Your task to perform on an android device: read, delete, or share a saved page in the chrome app Image 0: 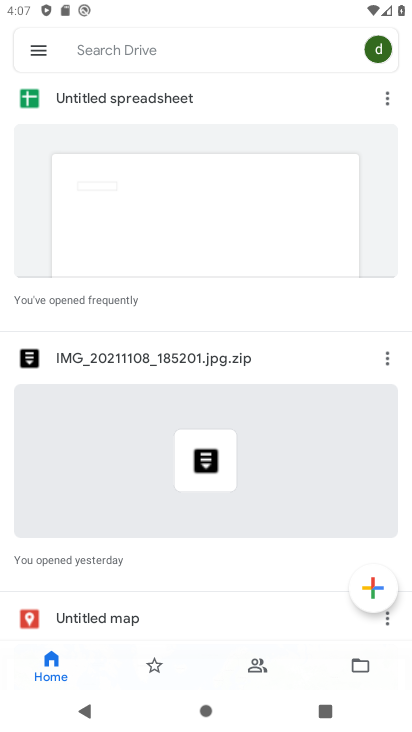
Step 0: press home button
Your task to perform on an android device: read, delete, or share a saved page in the chrome app Image 1: 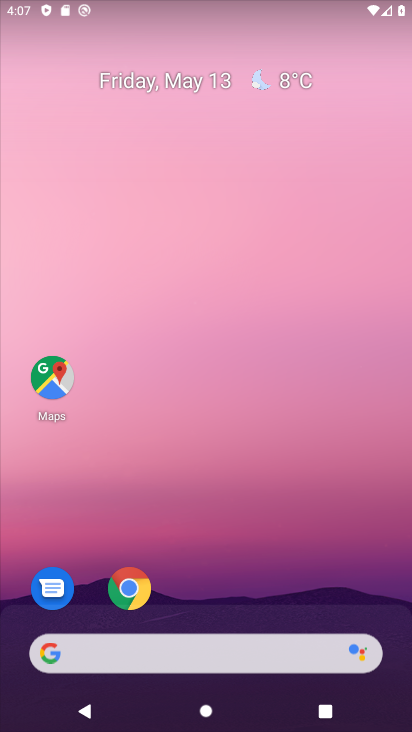
Step 1: click (125, 591)
Your task to perform on an android device: read, delete, or share a saved page in the chrome app Image 2: 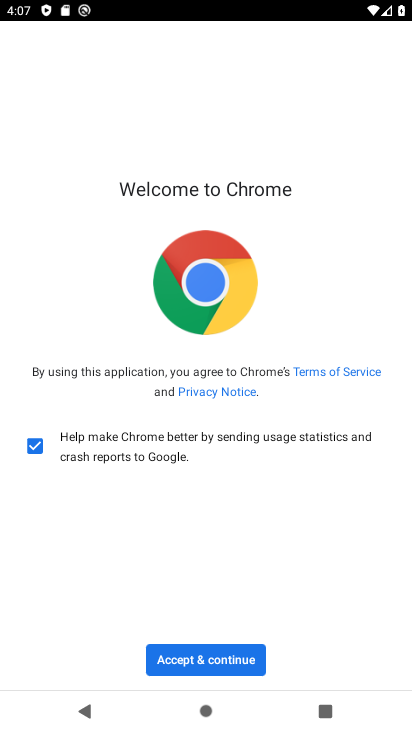
Step 2: click (257, 651)
Your task to perform on an android device: read, delete, or share a saved page in the chrome app Image 3: 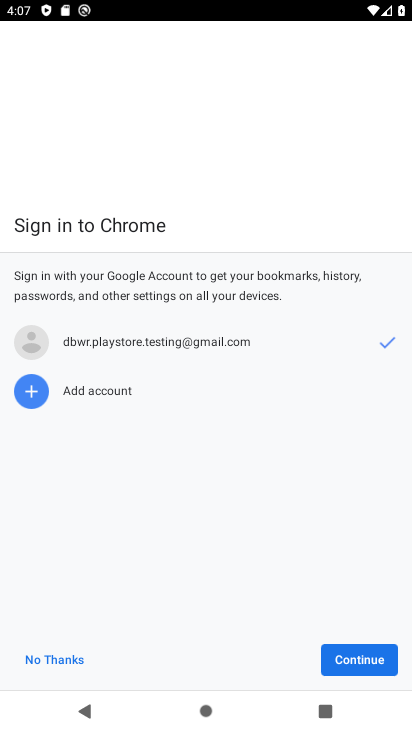
Step 3: click (257, 651)
Your task to perform on an android device: read, delete, or share a saved page in the chrome app Image 4: 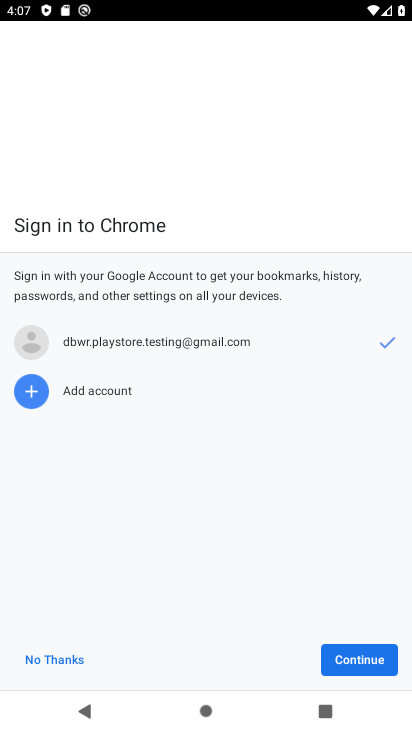
Step 4: click (368, 655)
Your task to perform on an android device: read, delete, or share a saved page in the chrome app Image 5: 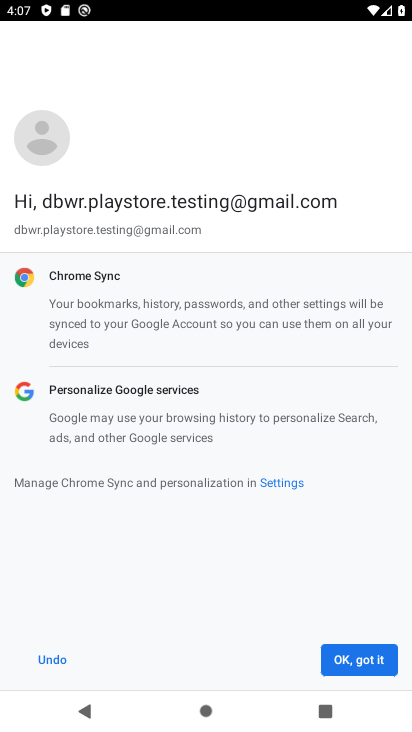
Step 5: click (373, 656)
Your task to perform on an android device: read, delete, or share a saved page in the chrome app Image 6: 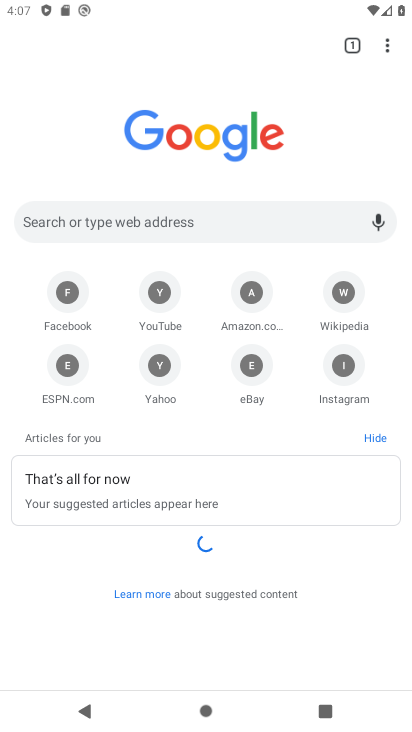
Step 6: click (383, 47)
Your task to perform on an android device: read, delete, or share a saved page in the chrome app Image 7: 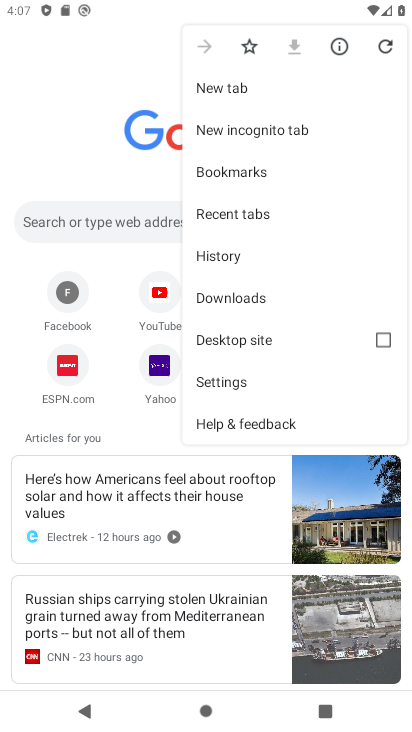
Step 7: click (250, 293)
Your task to perform on an android device: read, delete, or share a saved page in the chrome app Image 8: 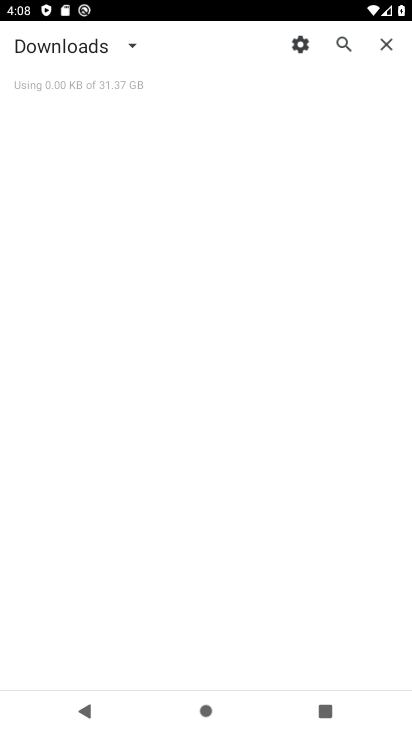
Step 8: task complete